Your task to perform on an android device: check storage Image 0: 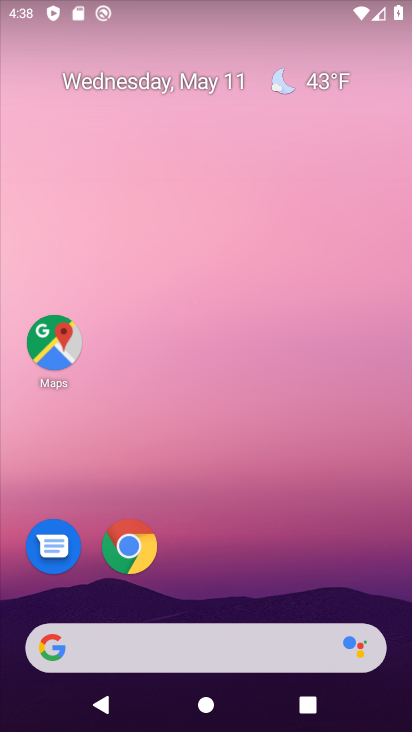
Step 0: drag from (214, 616) to (193, 199)
Your task to perform on an android device: check storage Image 1: 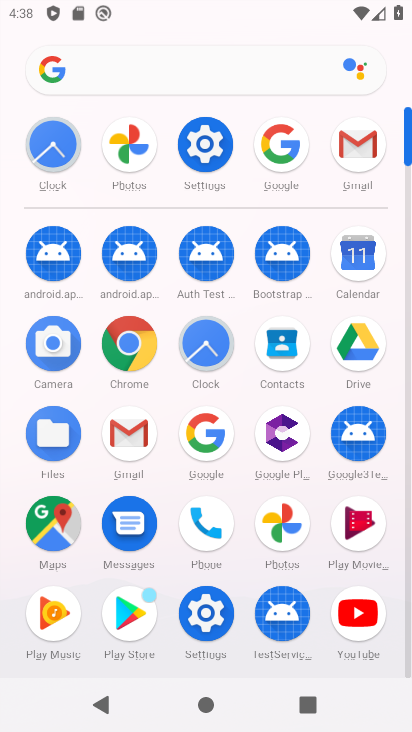
Step 1: click (206, 148)
Your task to perform on an android device: check storage Image 2: 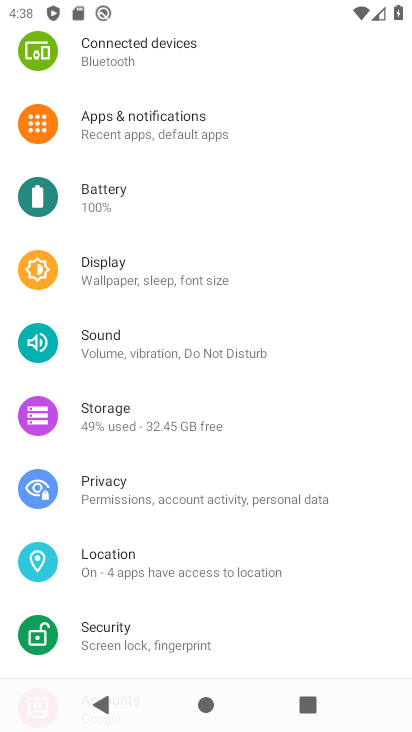
Step 2: click (116, 425)
Your task to perform on an android device: check storage Image 3: 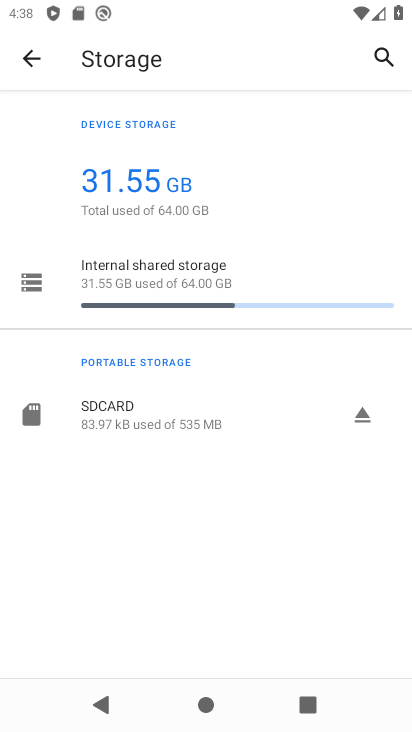
Step 3: task complete